Your task to perform on an android device: What's the weather going to be this weekend? Image 0: 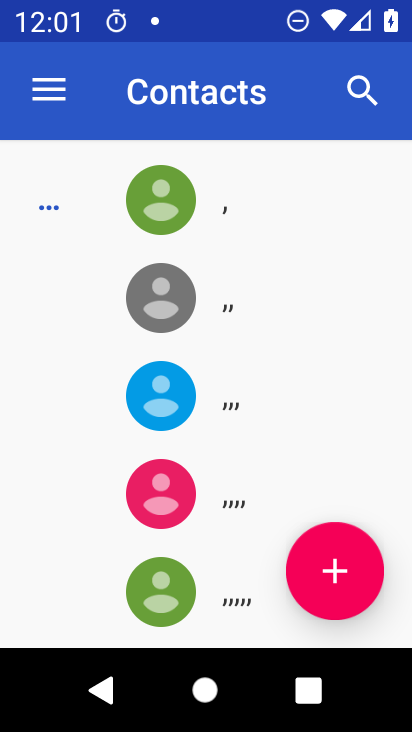
Step 0: press back button
Your task to perform on an android device: What's the weather going to be this weekend? Image 1: 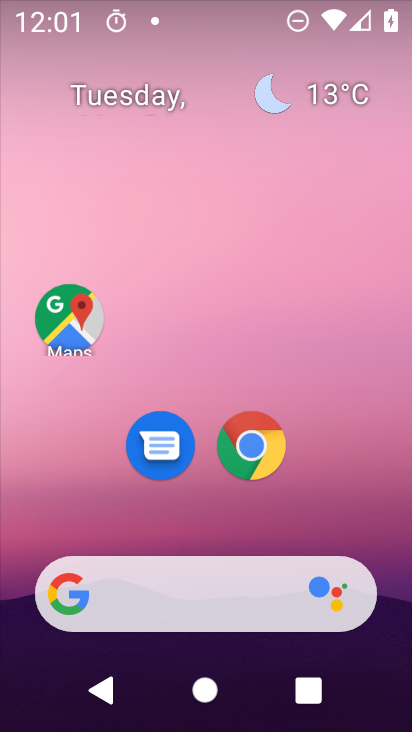
Step 1: drag from (214, 495) to (253, 90)
Your task to perform on an android device: What's the weather going to be this weekend? Image 2: 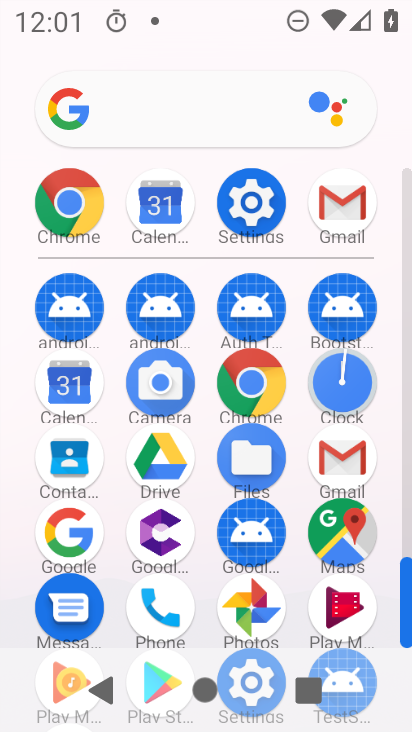
Step 2: drag from (226, 59) to (196, 586)
Your task to perform on an android device: What's the weather going to be this weekend? Image 3: 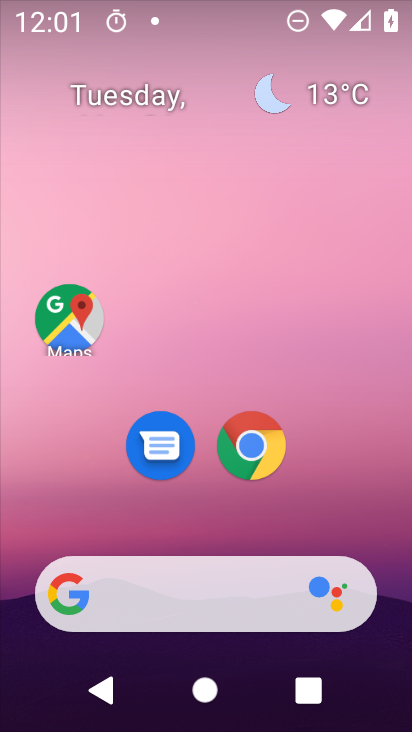
Step 3: click (265, 79)
Your task to perform on an android device: What's the weather going to be this weekend? Image 4: 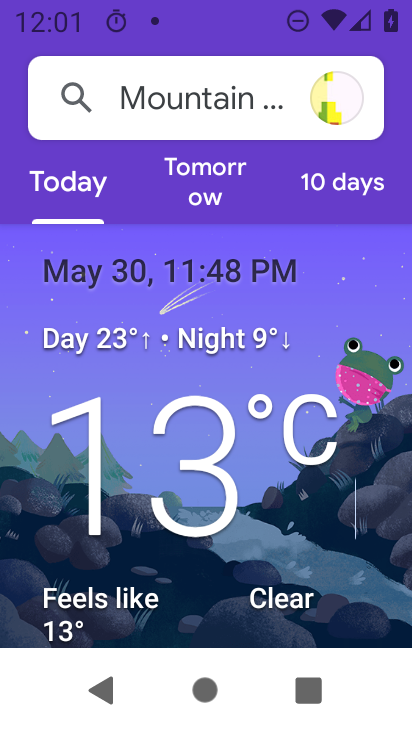
Step 4: click (314, 171)
Your task to perform on an android device: What's the weather going to be this weekend? Image 5: 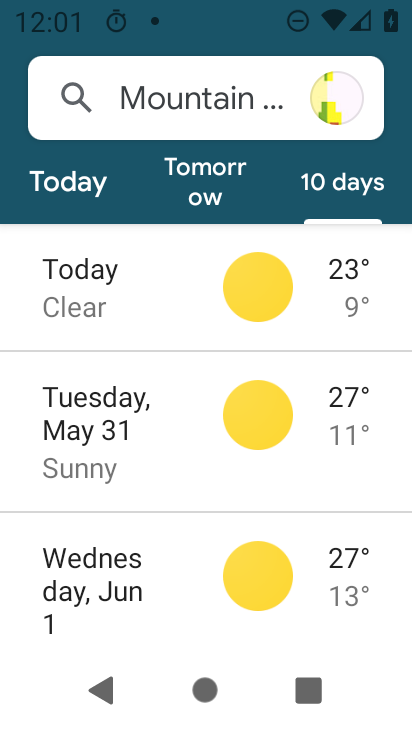
Step 5: task complete